Your task to perform on an android device: turn on data saver in the chrome app Image 0: 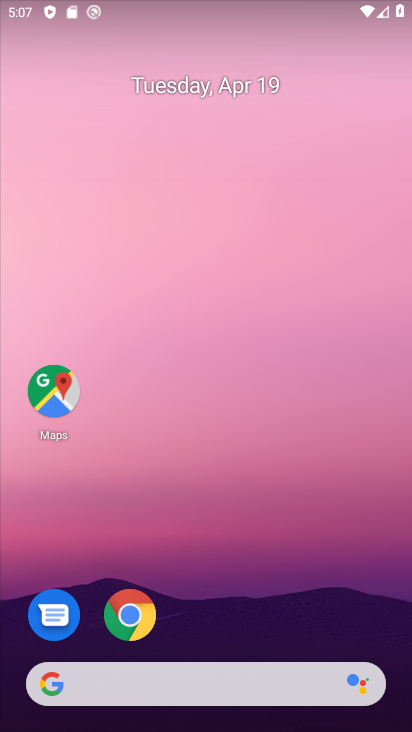
Step 0: click (128, 614)
Your task to perform on an android device: turn on data saver in the chrome app Image 1: 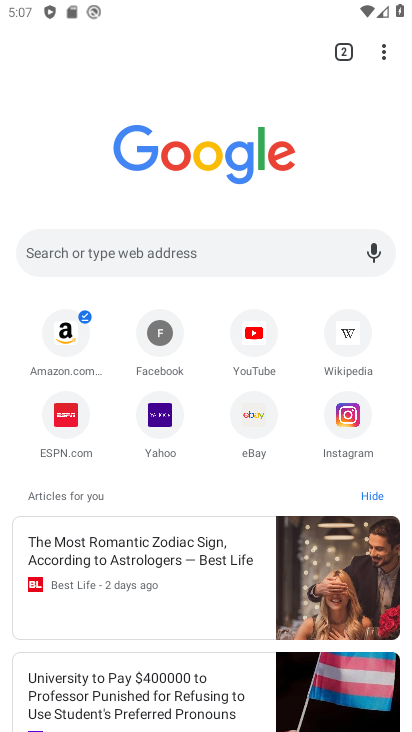
Step 1: click (385, 55)
Your task to perform on an android device: turn on data saver in the chrome app Image 2: 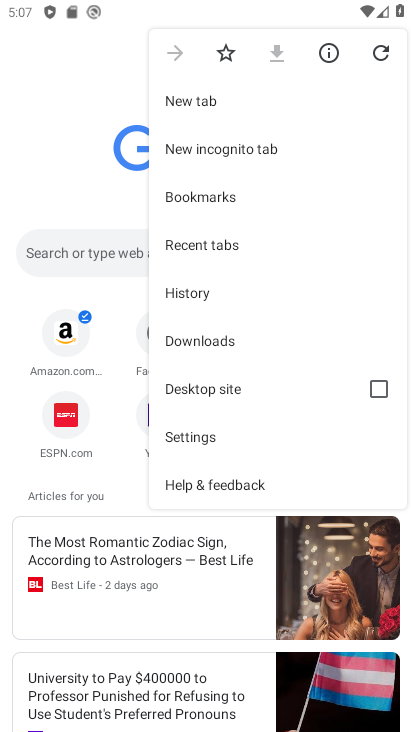
Step 2: click (191, 434)
Your task to perform on an android device: turn on data saver in the chrome app Image 3: 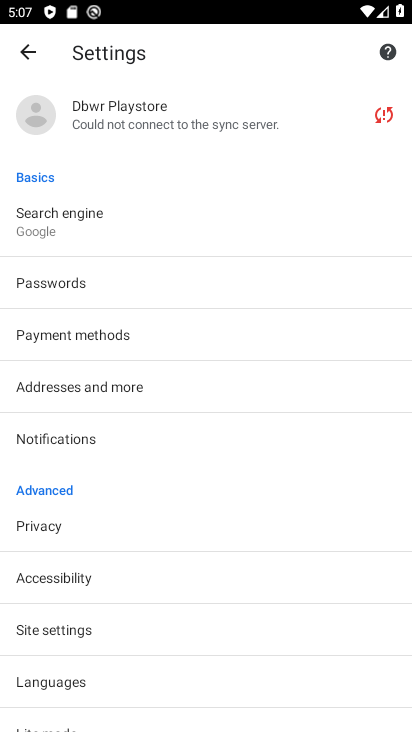
Step 3: drag from (168, 687) to (170, 312)
Your task to perform on an android device: turn on data saver in the chrome app Image 4: 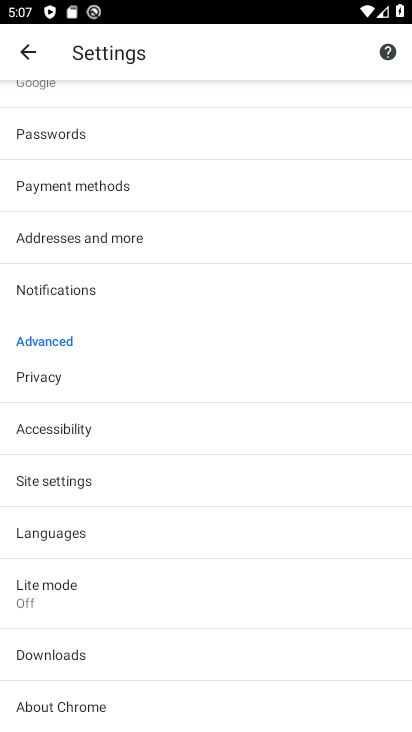
Step 4: click (47, 586)
Your task to perform on an android device: turn on data saver in the chrome app Image 5: 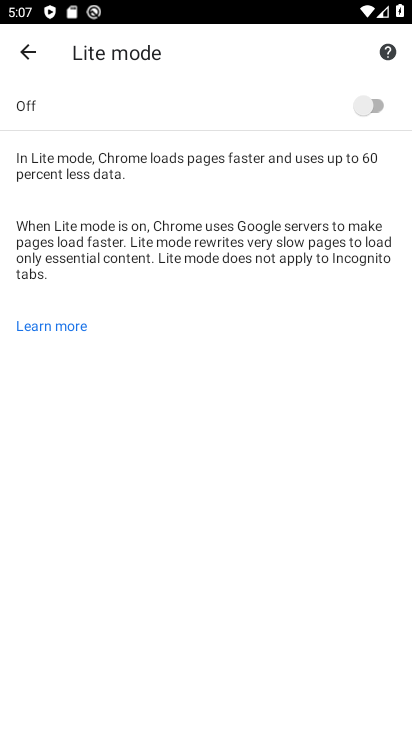
Step 5: click (375, 105)
Your task to perform on an android device: turn on data saver in the chrome app Image 6: 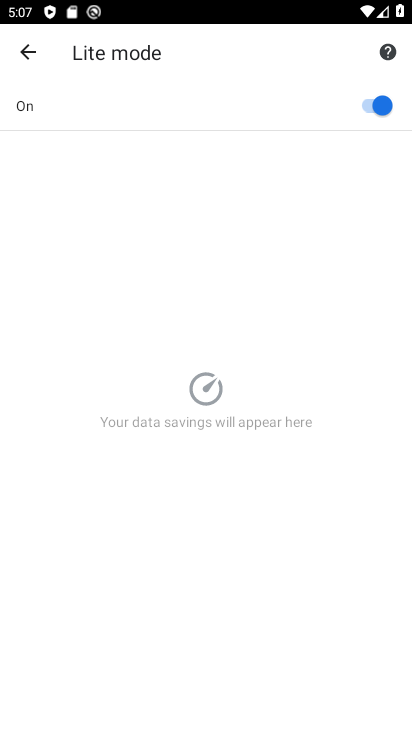
Step 6: task complete